Your task to perform on an android device: turn notification dots off Image 0: 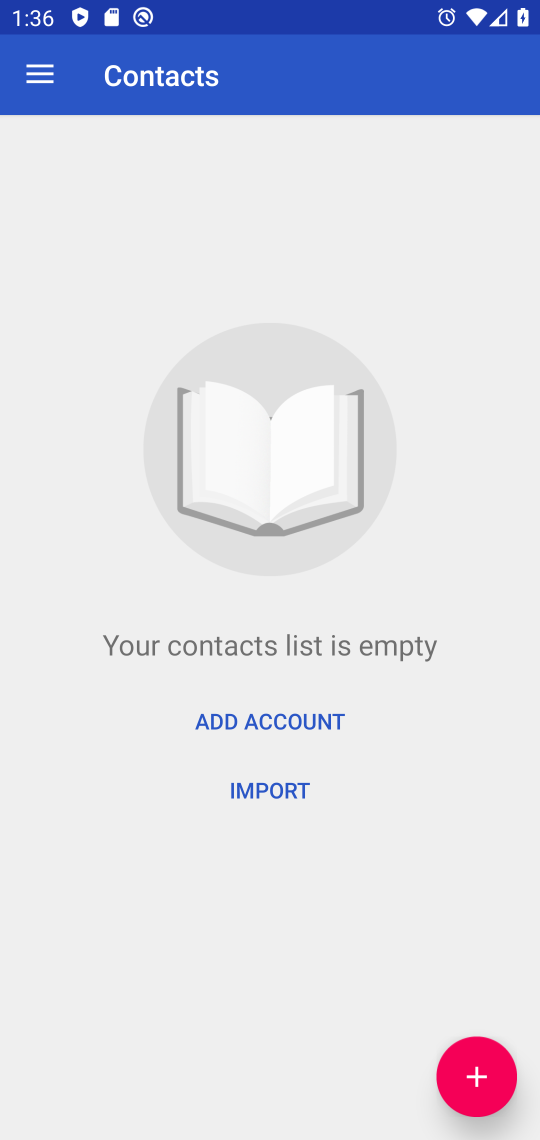
Step 0: drag from (214, 999) to (292, 244)
Your task to perform on an android device: turn notification dots off Image 1: 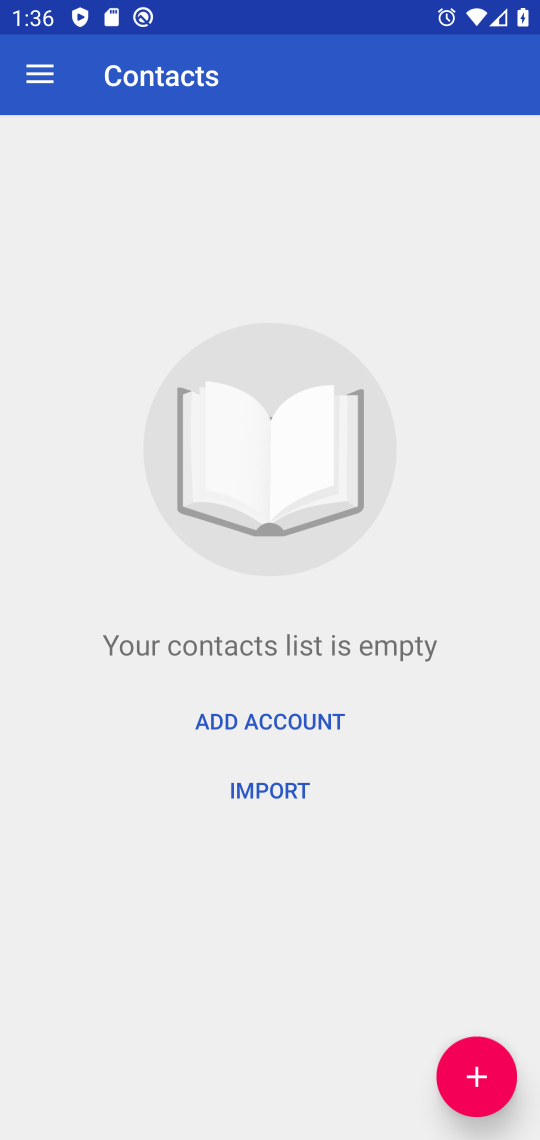
Step 1: press home button
Your task to perform on an android device: turn notification dots off Image 2: 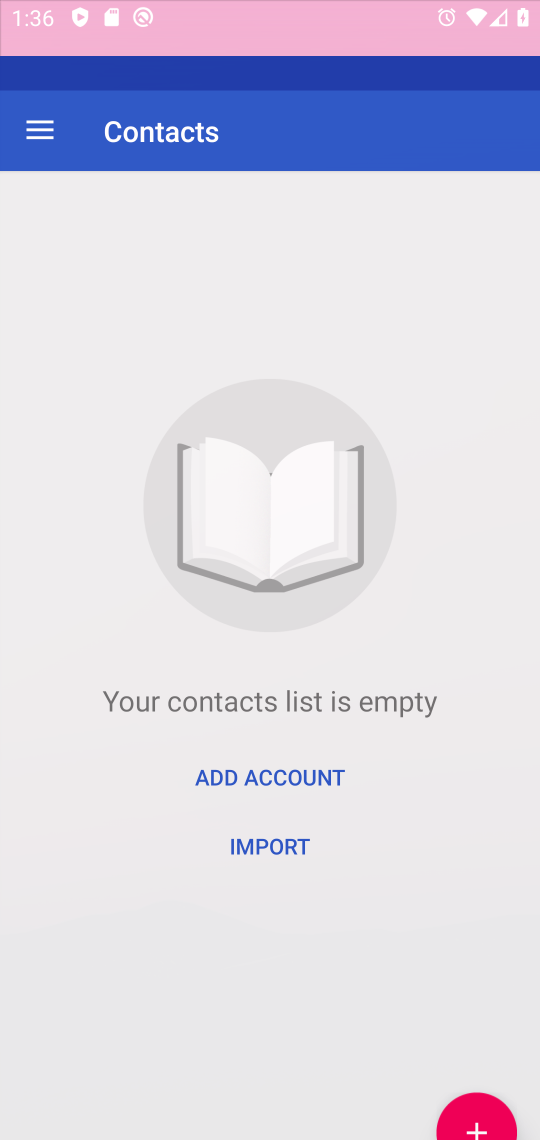
Step 2: drag from (270, 813) to (437, 35)
Your task to perform on an android device: turn notification dots off Image 3: 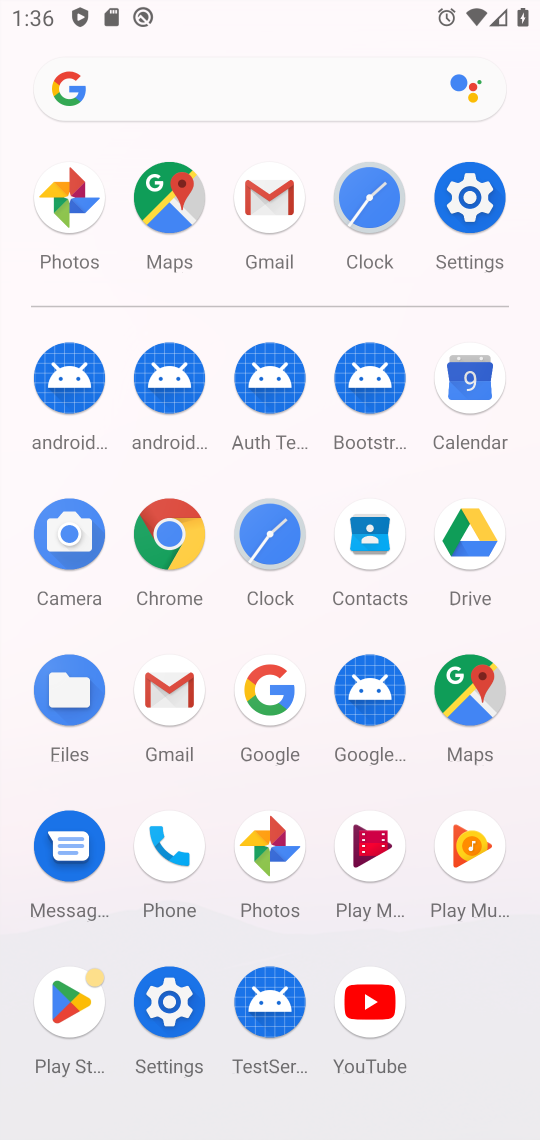
Step 3: drag from (249, 928) to (360, 305)
Your task to perform on an android device: turn notification dots off Image 4: 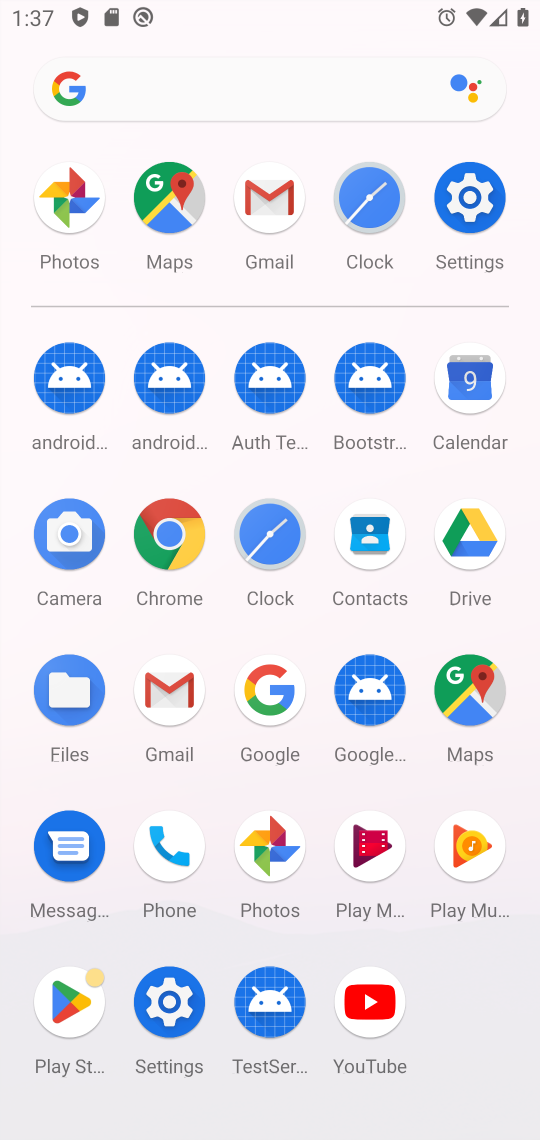
Step 4: click (165, 995)
Your task to perform on an android device: turn notification dots off Image 5: 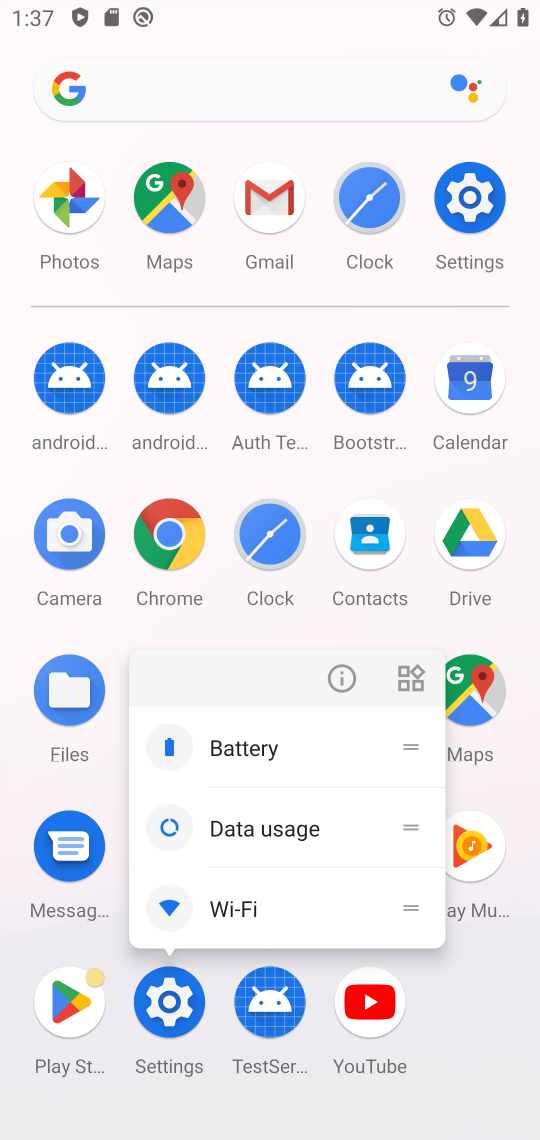
Step 5: click (346, 678)
Your task to perform on an android device: turn notification dots off Image 6: 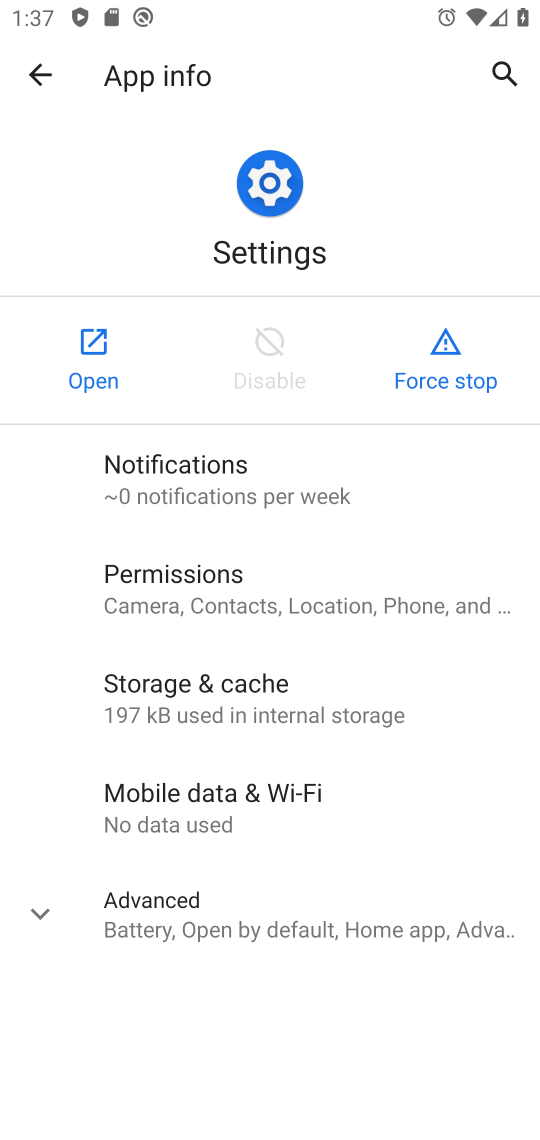
Step 6: click (112, 354)
Your task to perform on an android device: turn notification dots off Image 7: 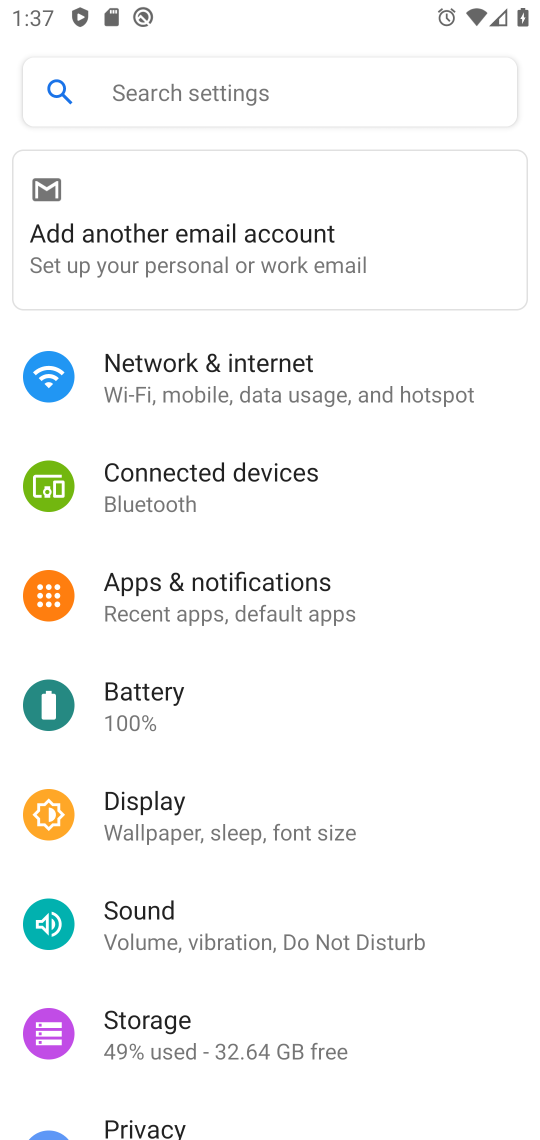
Step 7: drag from (307, 1093) to (429, 366)
Your task to perform on an android device: turn notification dots off Image 8: 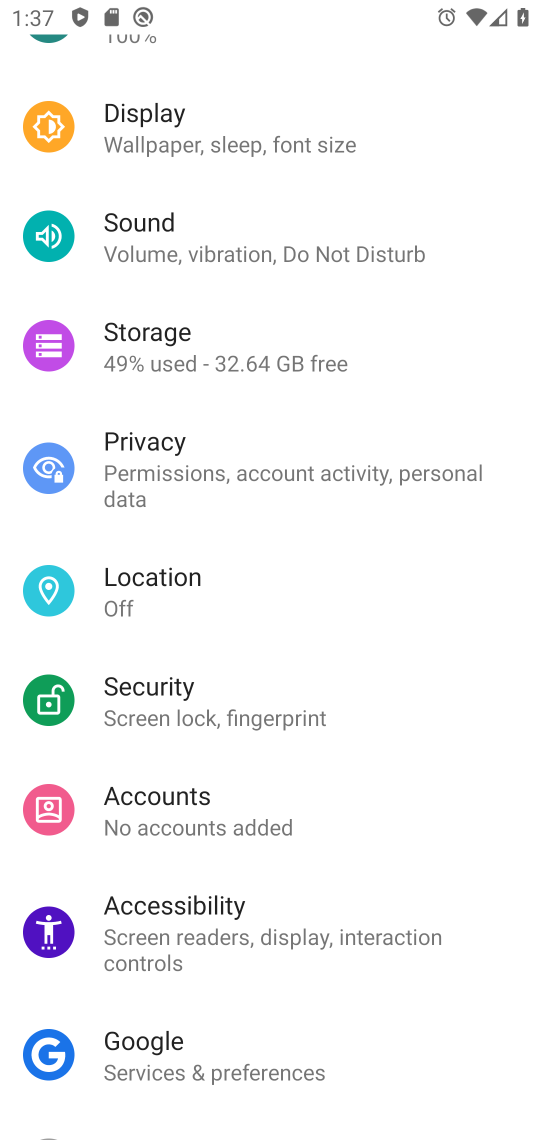
Step 8: drag from (254, 981) to (358, 626)
Your task to perform on an android device: turn notification dots off Image 9: 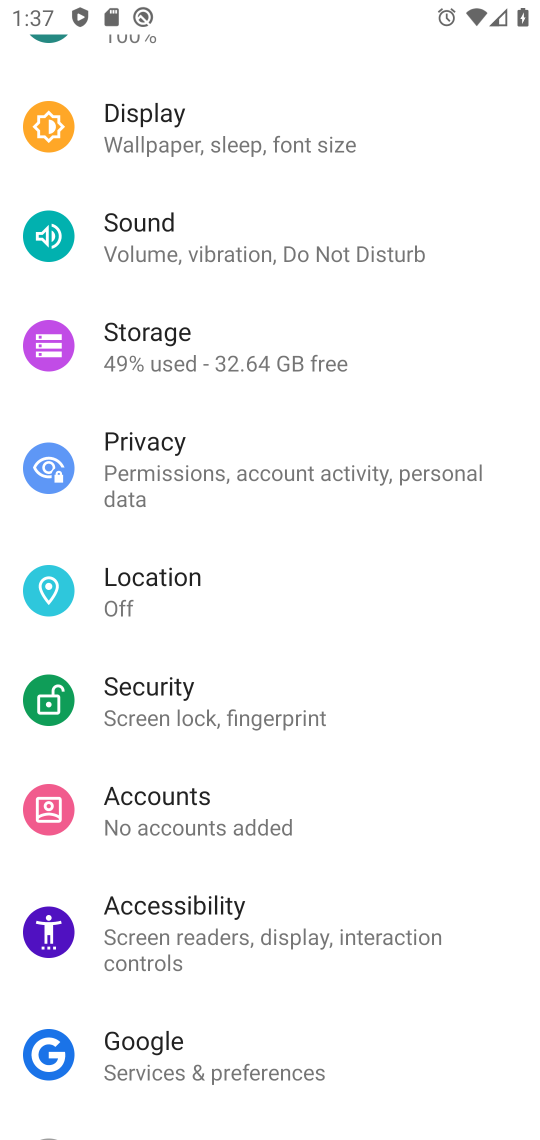
Step 9: drag from (342, 472) to (447, 1131)
Your task to perform on an android device: turn notification dots off Image 10: 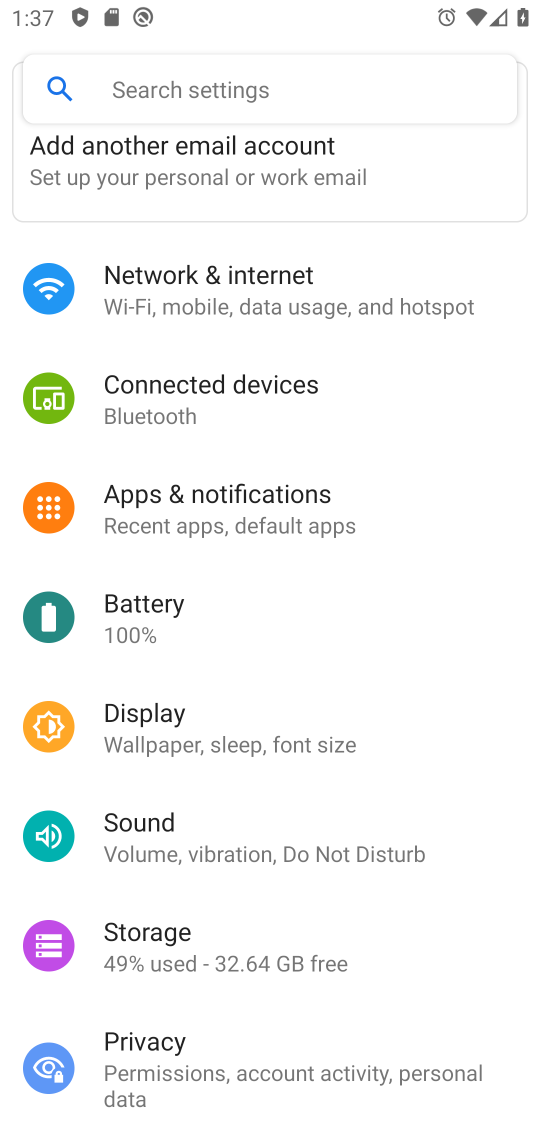
Step 10: click (214, 513)
Your task to perform on an android device: turn notification dots off Image 11: 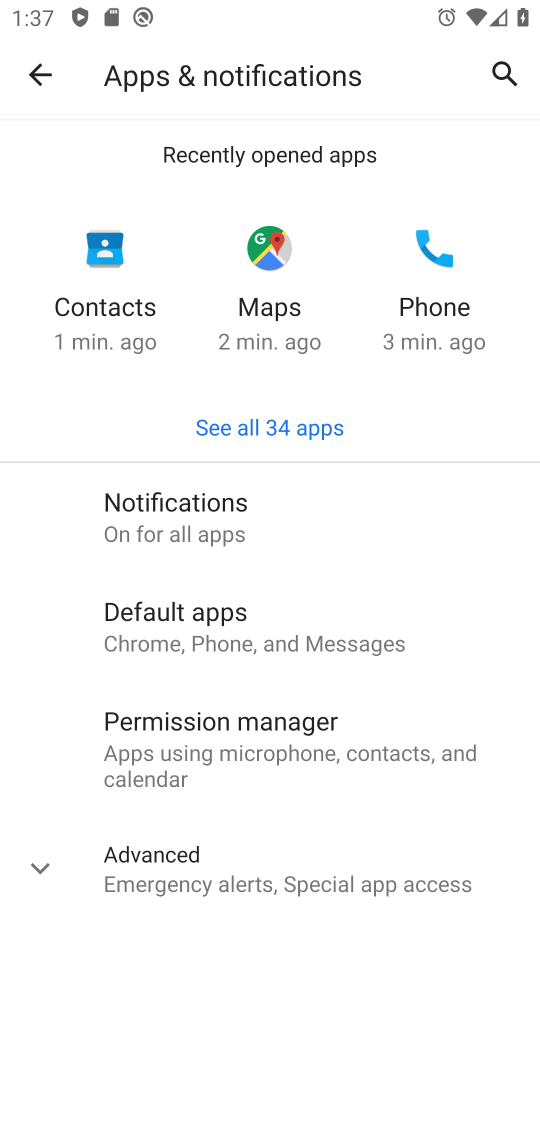
Step 11: click (271, 528)
Your task to perform on an android device: turn notification dots off Image 12: 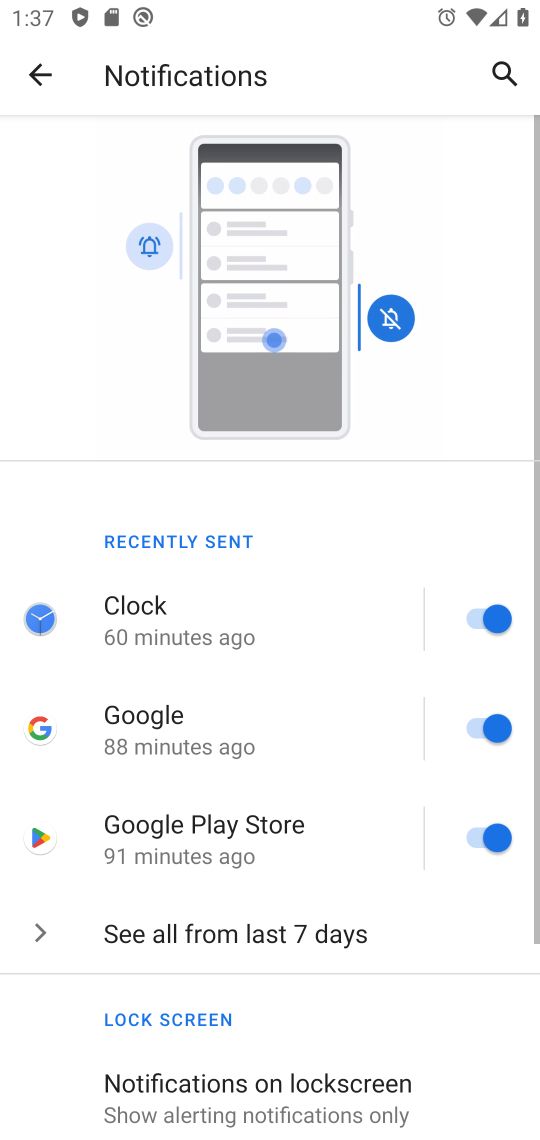
Step 12: drag from (285, 978) to (352, 465)
Your task to perform on an android device: turn notification dots off Image 13: 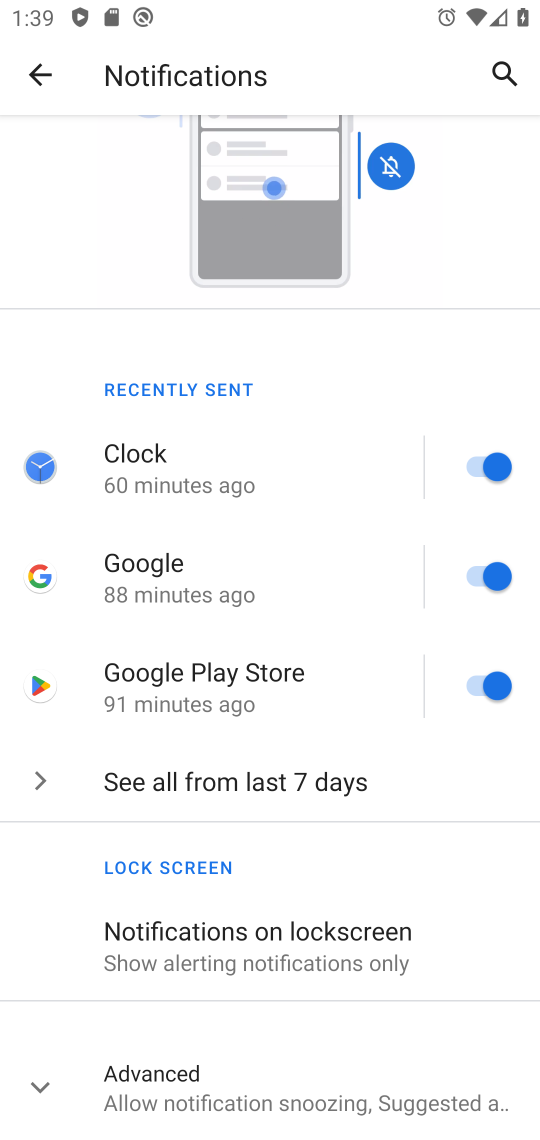
Step 13: drag from (271, 651) to (301, 436)
Your task to perform on an android device: turn notification dots off Image 14: 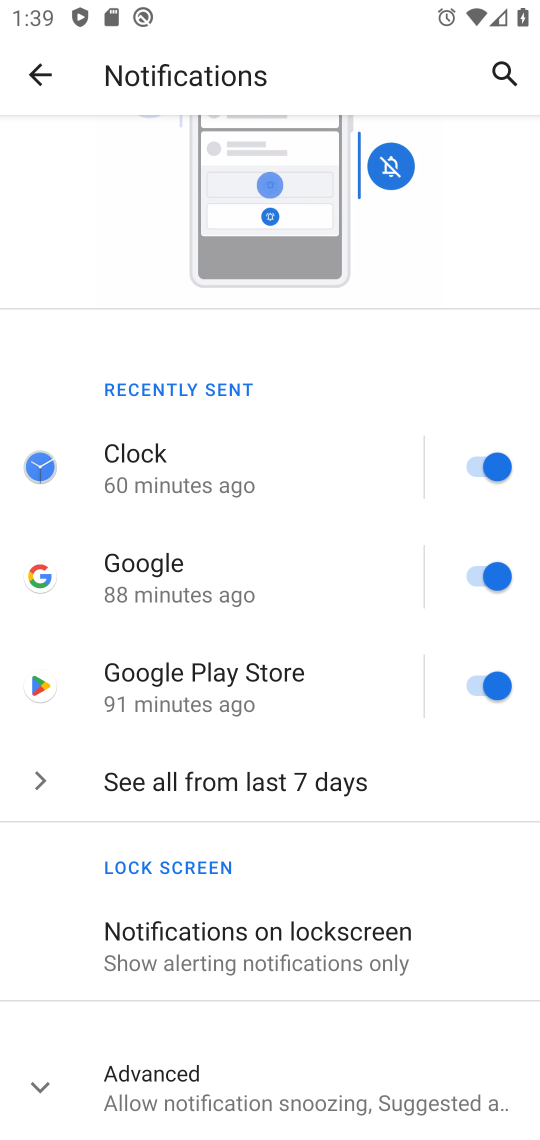
Step 14: click (233, 1078)
Your task to perform on an android device: turn notification dots off Image 15: 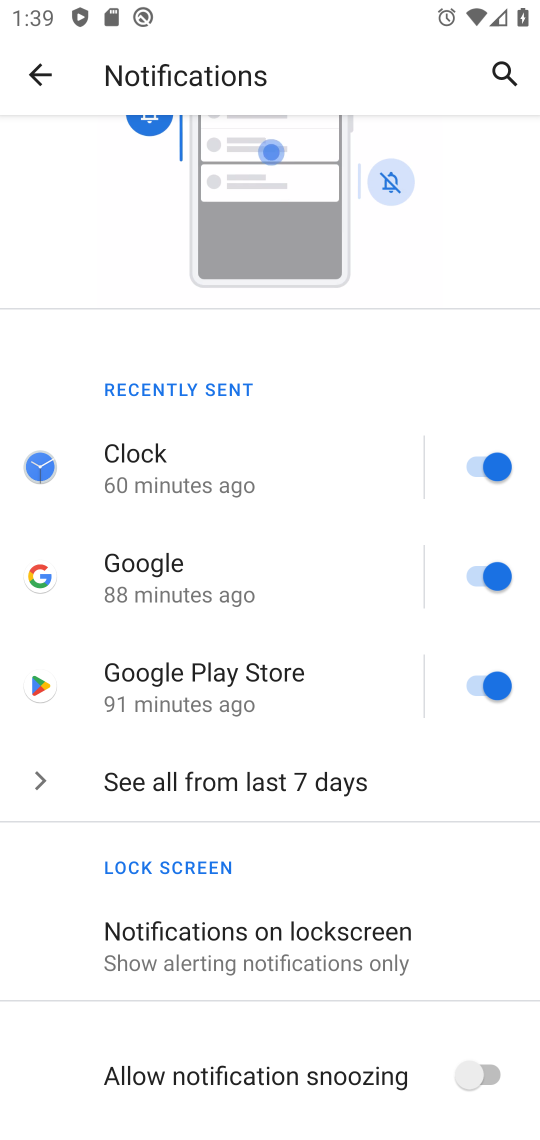
Step 15: drag from (299, 1022) to (460, 287)
Your task to perform on an android device: turn notification dots off Image 16: 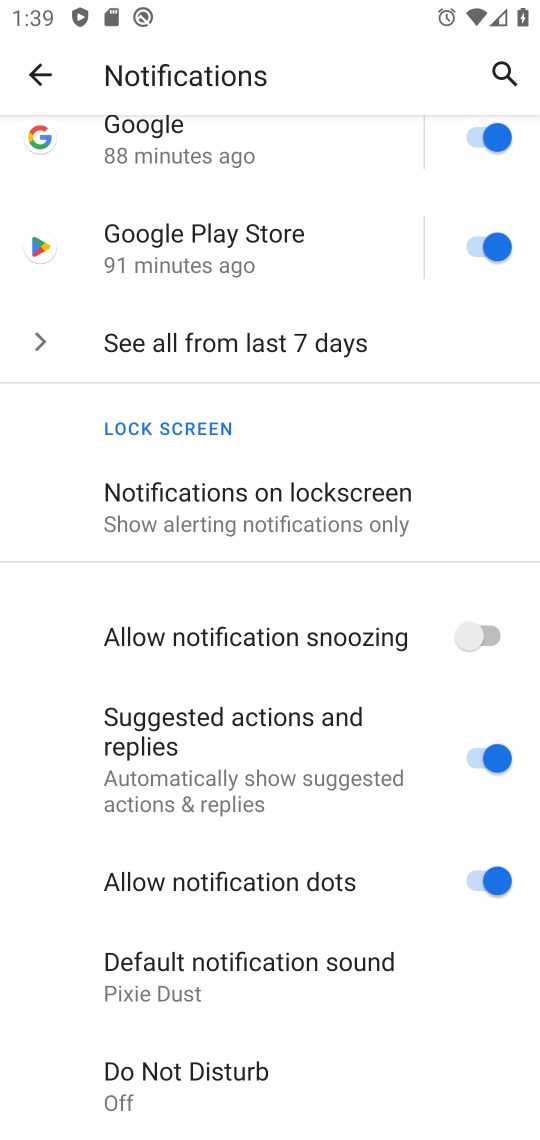
Step 16: click (492, 873)
Your task to perform on an android device: turn notification dots off Image 17: 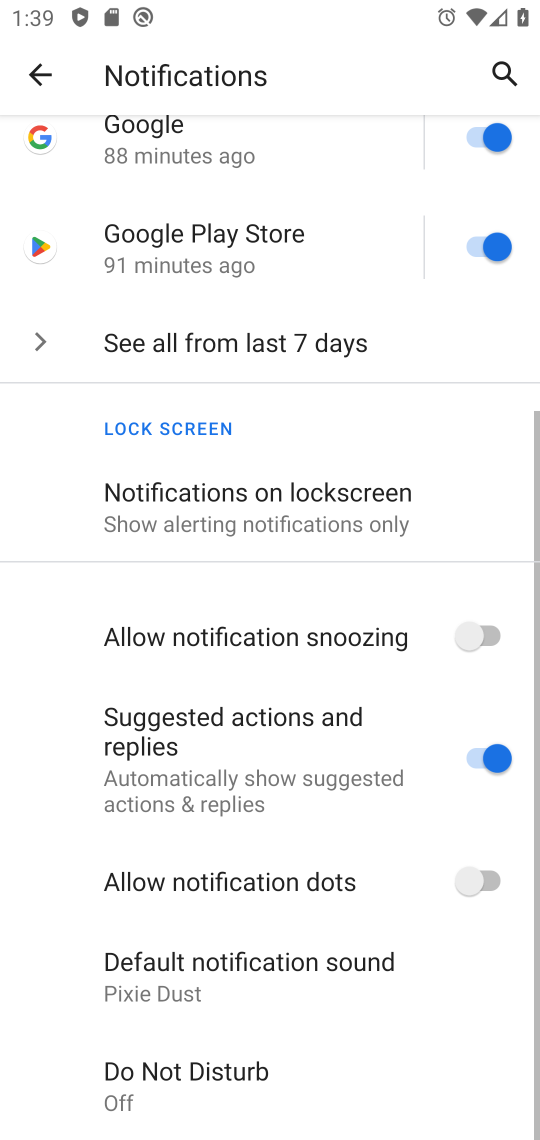
Step 17: task complete